Your task to perform on an android device: set default search engine in the chrome app Image 0: 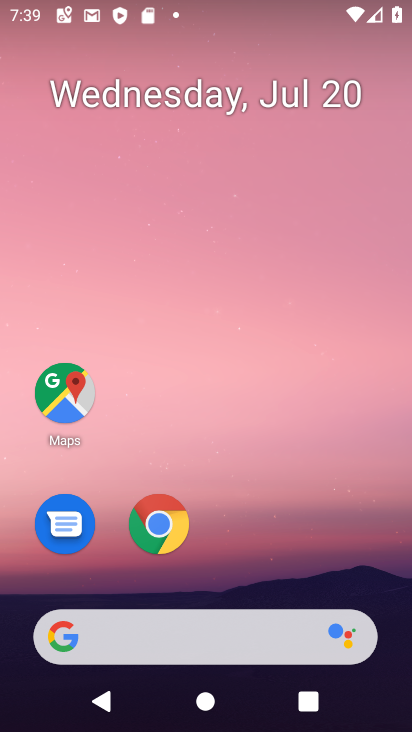
Step 0: click (165, 527)
Your task to perform on an android device: set default search engine in the chrome app Image 1: 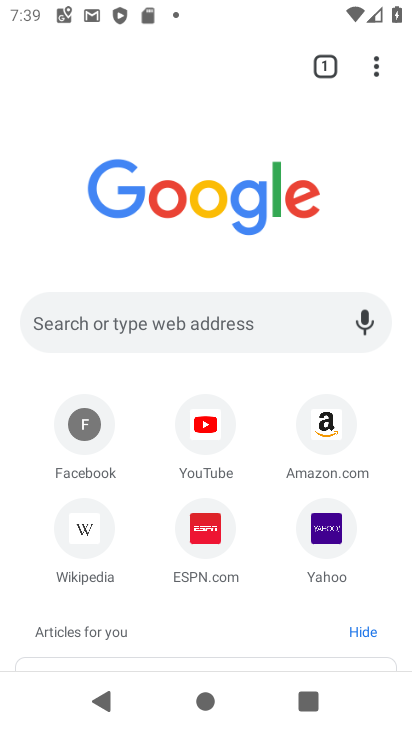
Step 1: drag from (378, 67) to (197, 546)
Your task to perform on an android device: set default search engine in the chrome app Image 2: 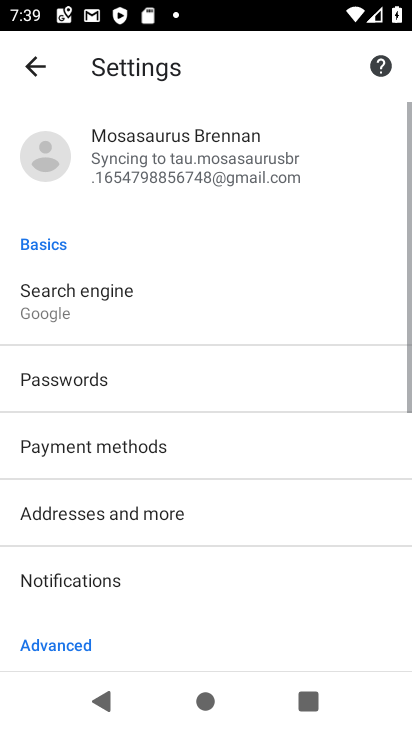
Step 2: click (74, 292)
Your task to perform on an android device: set default search engine in the chrome app Image 3: 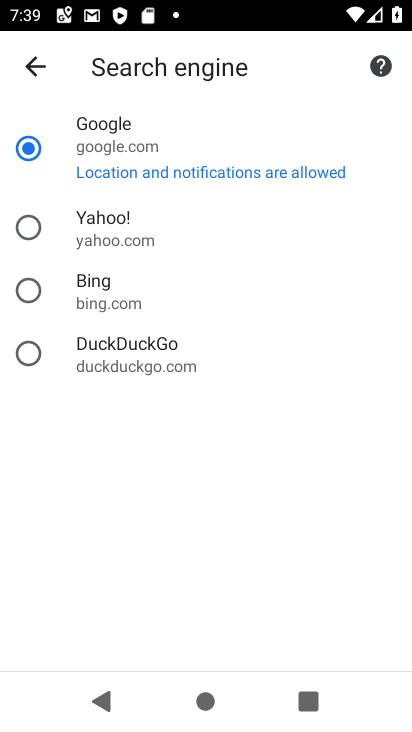
Step 3: click (29, 232)
Your task to perform on an android device: set default search engine in the chrome app Image 4: 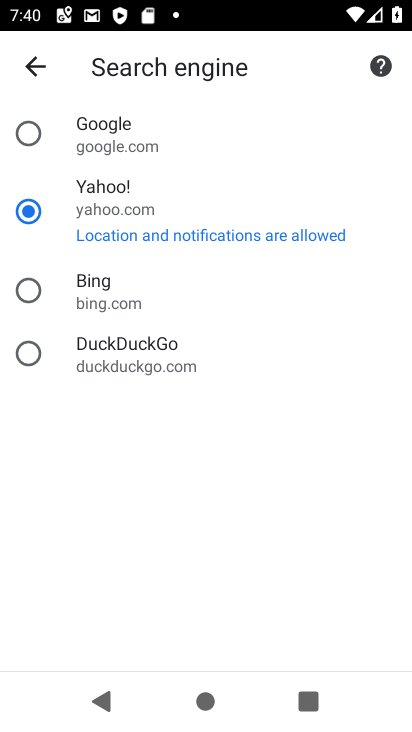
Step 4: task complete